Your task to perform on an android device: What is the news today? Image 0: 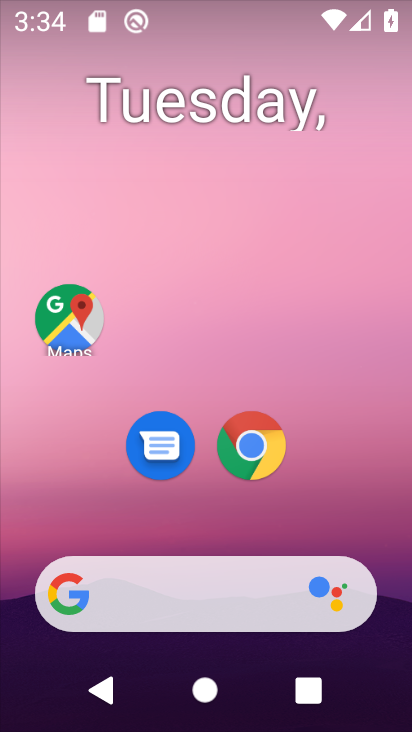
Step 0: drag from (4, 423) to (409, 214)
Your task to perform on an android device: What is the news today? Image 1: 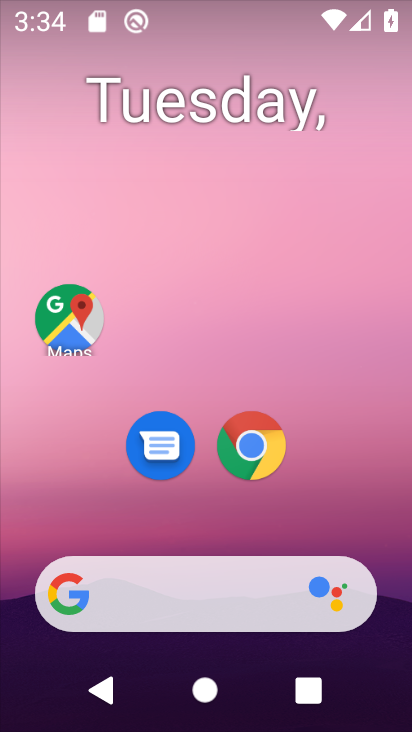
Step 1: task complete